Your task to perform on an android device: Open Amazon Image 0: 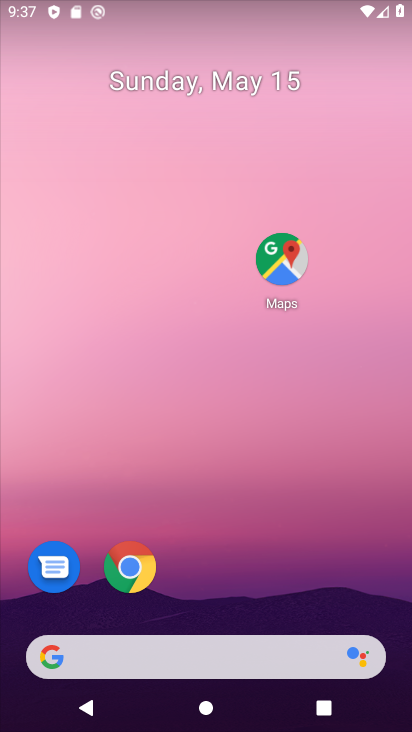
Step 0: drag from (241, 557) to (228, 118)
Your task to perform on an android device: Open Amazon Image 1: 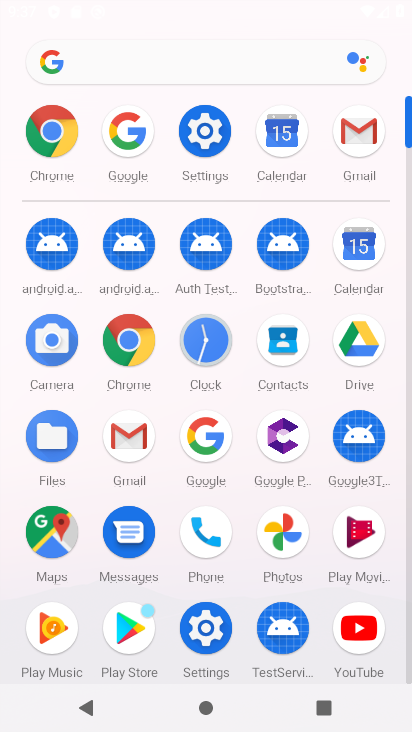
Step 1: click (119, 335)
Your task to perform on an android device: Open Amazon Image 2: 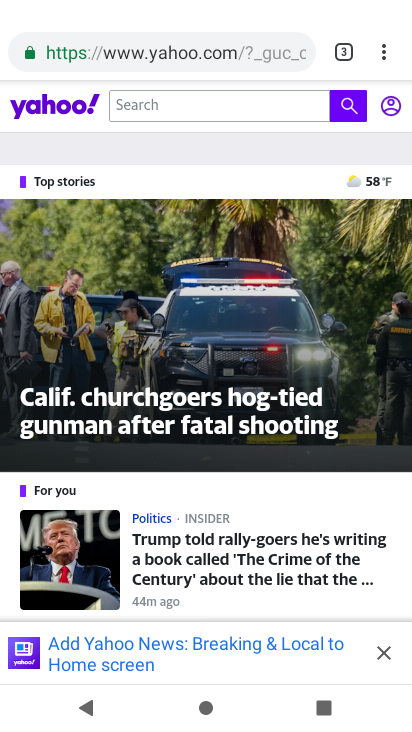
Step 2: press back button
Your task to perform on an android device: Open Amazon Image 3: 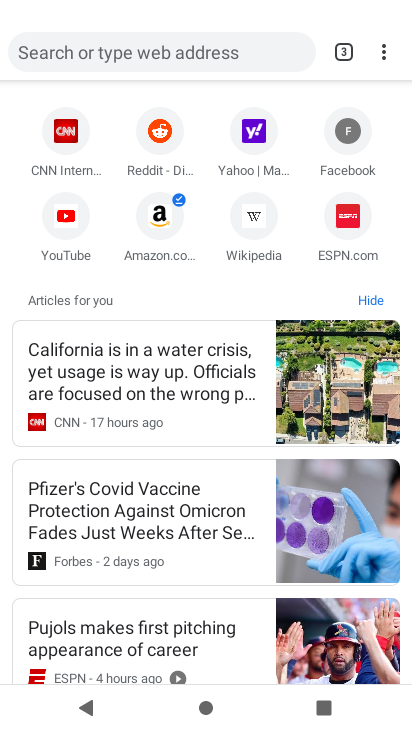
Step 3: click (163, 216)
Your task to perform on an android device: Open Amazon Image 4: 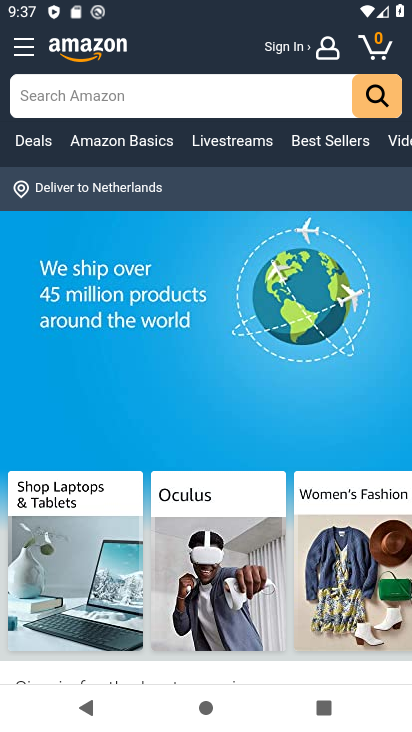
Step 4: task complete